Your task to perform on an android device: move an email to a new category in the gmail app Image 0: 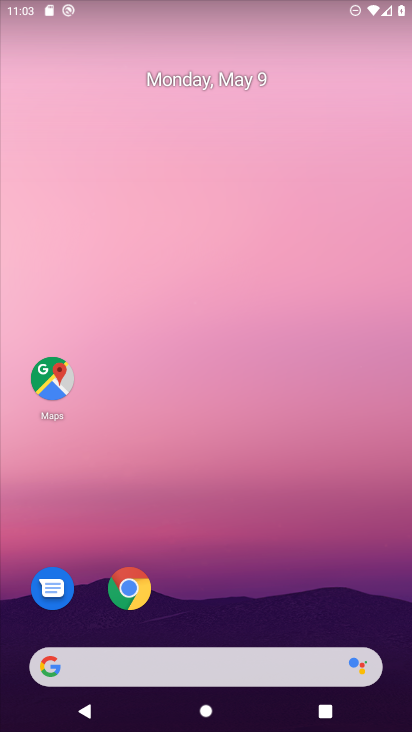
Step 0: drag from (238, 577) to (248, 157)
Your task to perform on an android device: move an email to a new category in the gmail app Image 1: 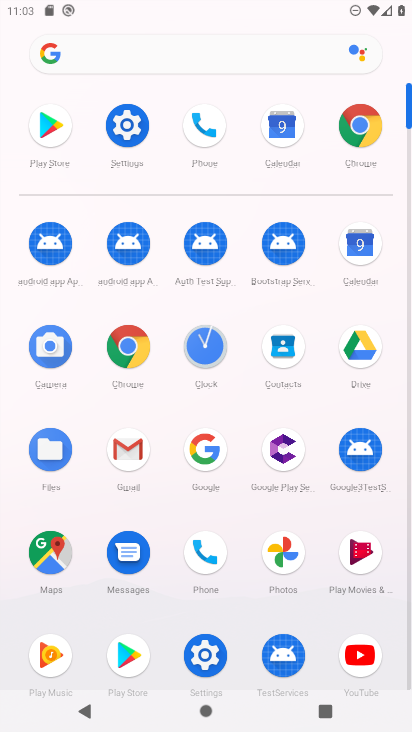
Step 1: click (353, 668)
Your task to perform on an android device: move an email to a new category in the gmail app Image 2: 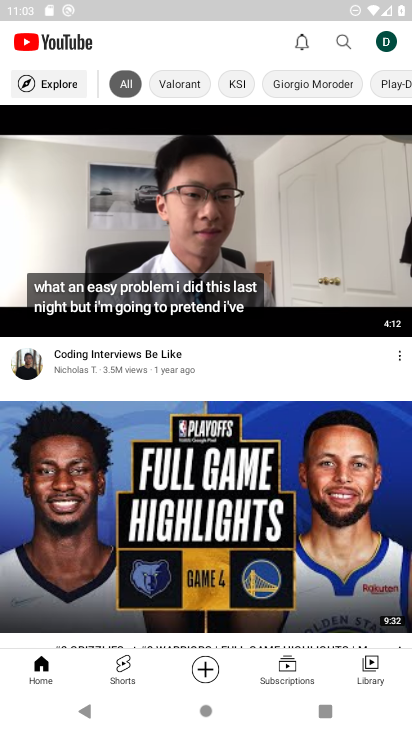
Step 2: press back button
Your task to perform on an android device: move an email to a new category in the gmail app Image 3: 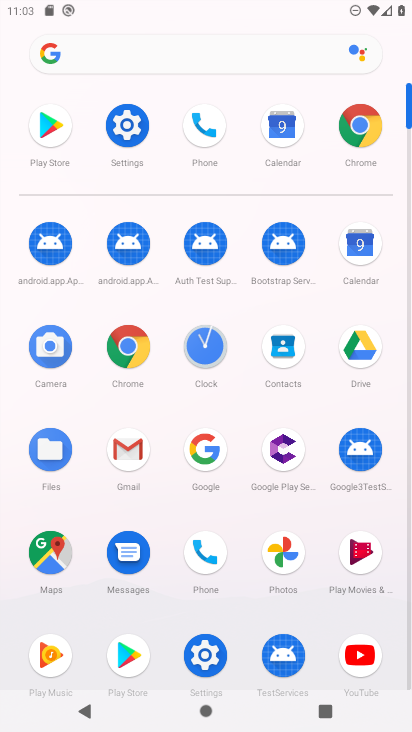
Step 3: click (129, 472)
Your task to perform on an android device: move an email to a new category in the gmail app Image 4: 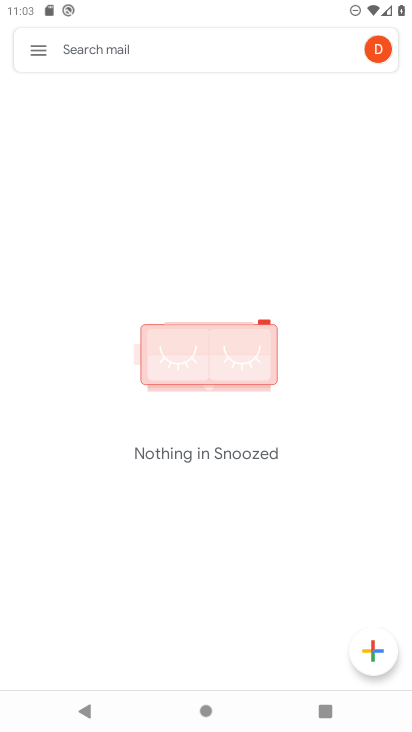
Step 4: click (45, 60)
Your task to perform on an android device: move an email to a new category in the gmail app Image 5: 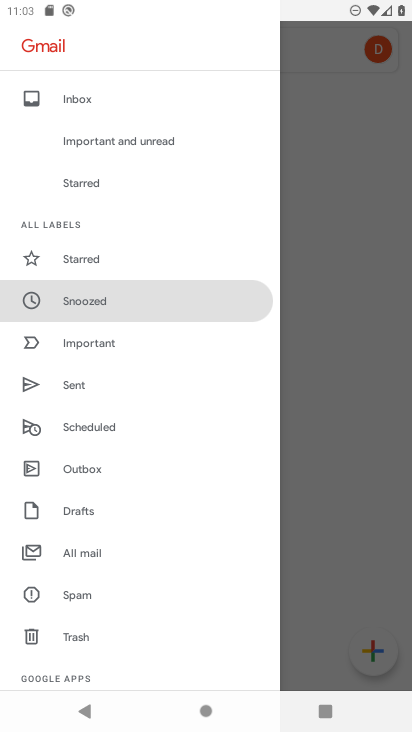
Step 5: click (90, 551)
Your task to perform on an android device: move an email to a new category in the gmail app Image 6: 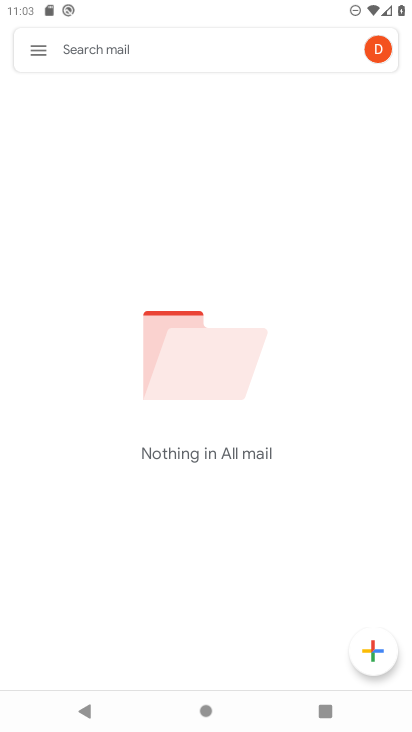
Step 6: task complete